Your task to perform on an android device: turn smart compose on in the gmail app Image 0: 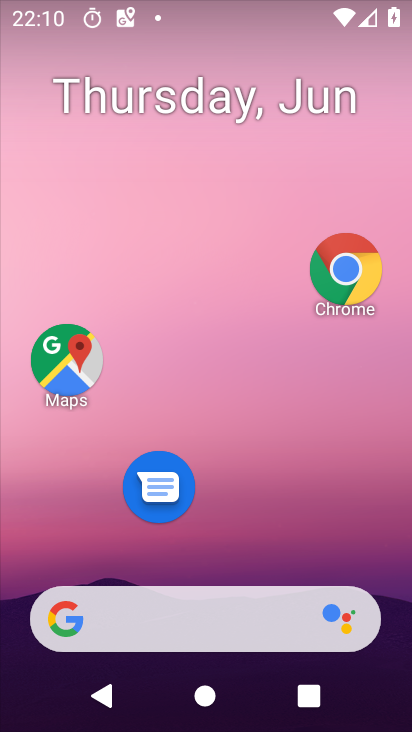
Step 0: drag from (217, 560) to (222, 168)
Your task to perform on an android device: turn smart compose on in the gmail app Image 1: 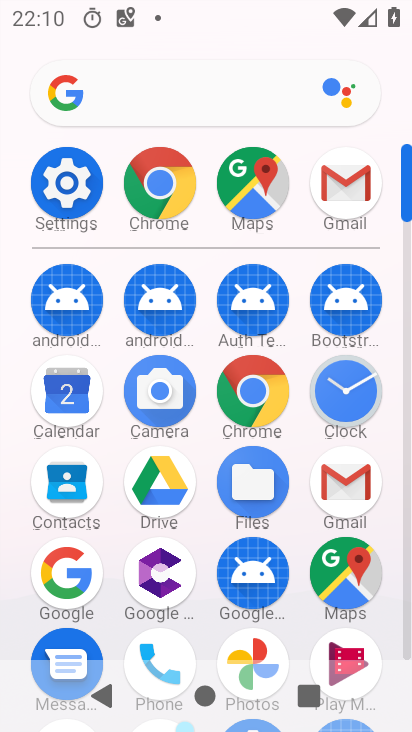
Step 1: click (346, 472)
Your task to perform on an android device: turn smart compose on in the gmail app Image 2: 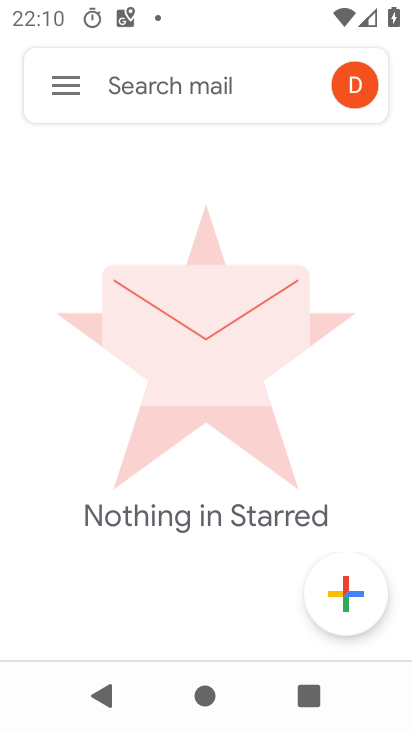
Step 2: click (67, 85)
Your task to perform on an android device: turn smart compose on in the gmail app Image 3: 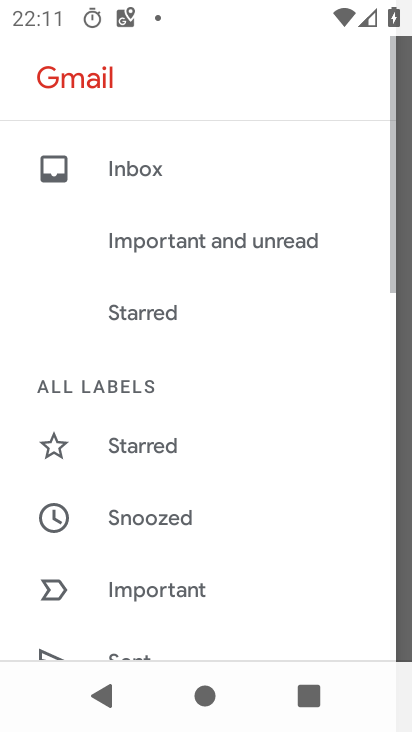
Step 3: drag from (147, 453) to (209, 104)
Your task to perform on an android device: turn smart compose on in the gmail app Image 4: 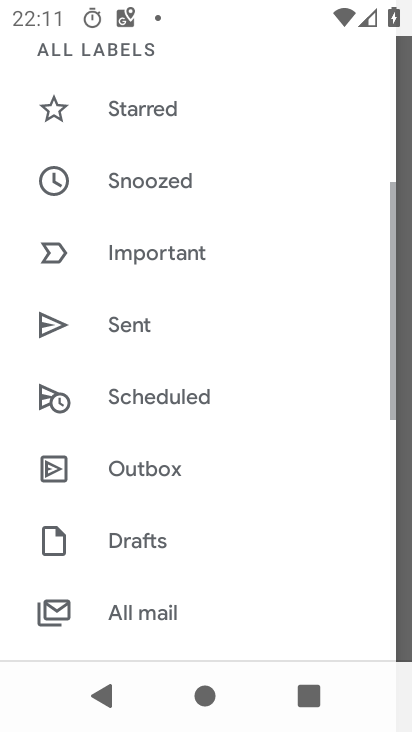
Step 4: drag from (164, 586) to (267, 79)
Your task to perform on an android device: turn smart compose on in the gmail app Image 5: 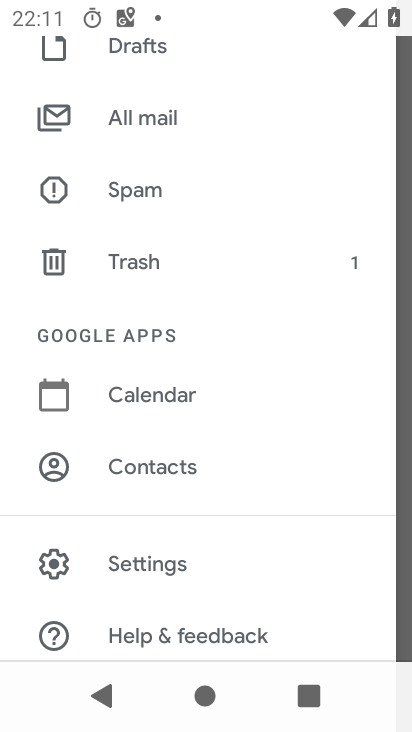
Step 5: click (187, 567)
Your task to perform on an android device: turn smart compose on in the gmail app Image 6: 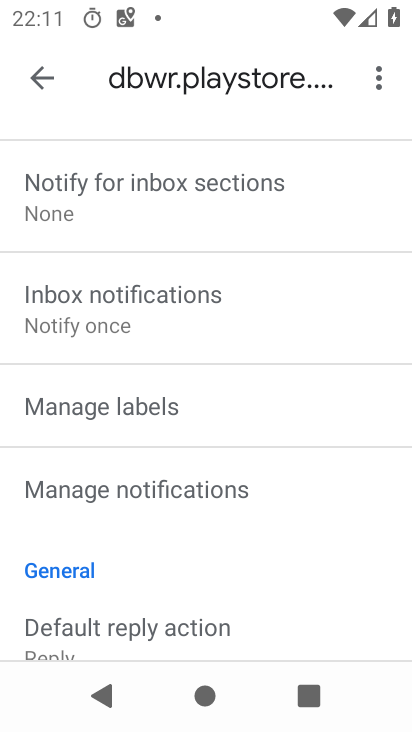
Step 6: task complete